Your task to perform on an android device: Open sound settings Image 0: 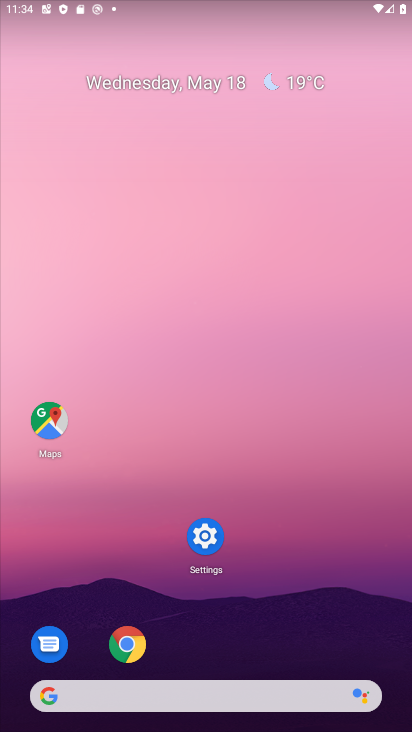
Step 0: drag from (306, 608) to (263, 139)
Your task to perform on an android device: Open sound settings Image 1: 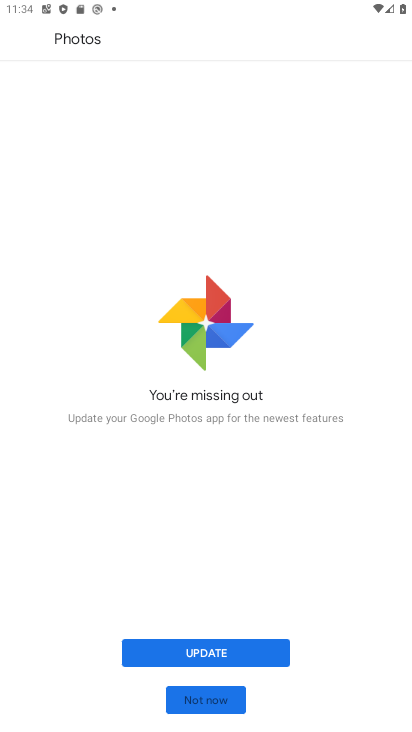
Step 1: press home button
Your task to perform on an android device: Open sound settings Image 2: 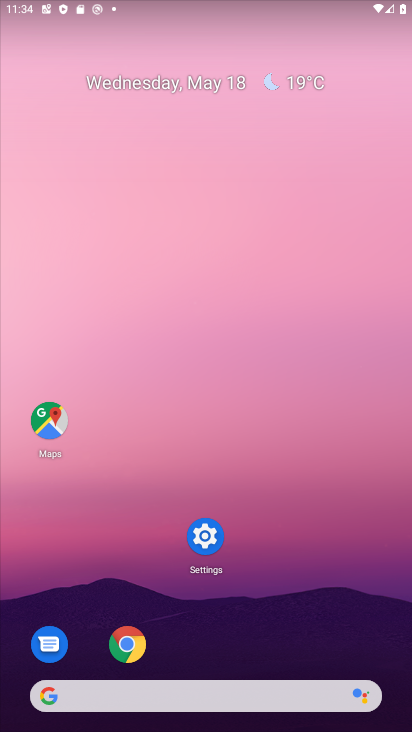
Step 2: drag from (316, 610) to (309, 213)
Your task to perform on an android device: Open sound settings Image 3: 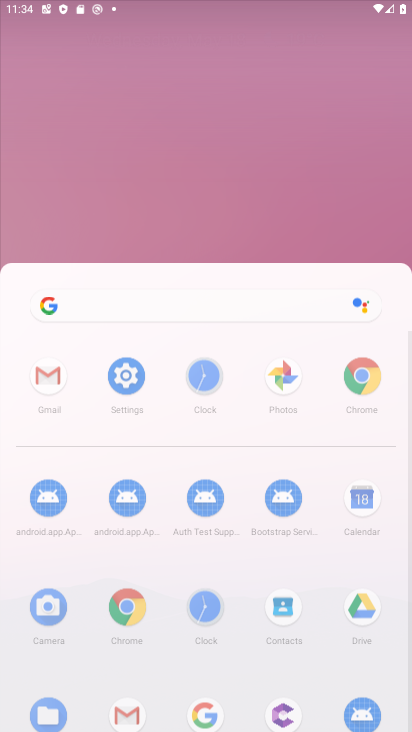
Step 3: click (314, 133)
Your task to perform on an android device: Open sound settings Image 4: 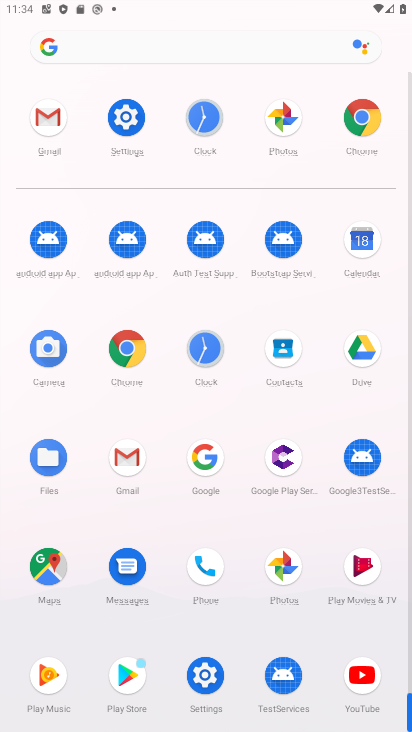
Step 4: click (126, 116)
Your task to perform on an android device: Open sound settings Image 5: 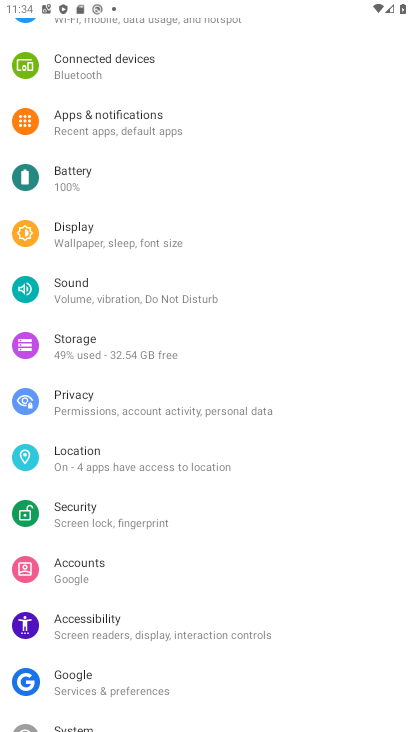
Step 5: click (82, 297)
Your task to perform on an android device: Open sound settings Image 6: 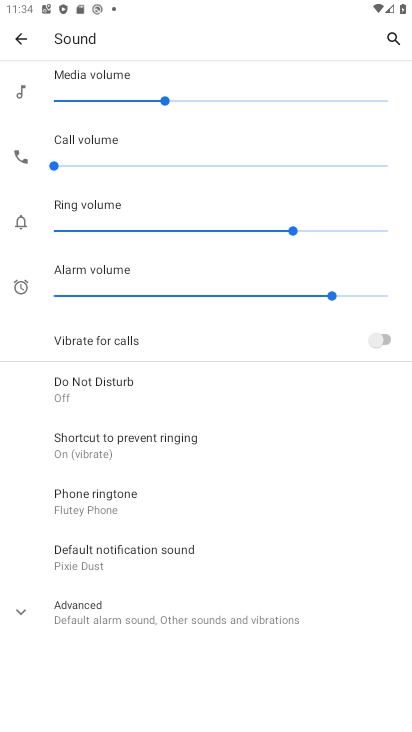
Step 6: task complete